Your task to perform on an android device: Check the weather Image 0: 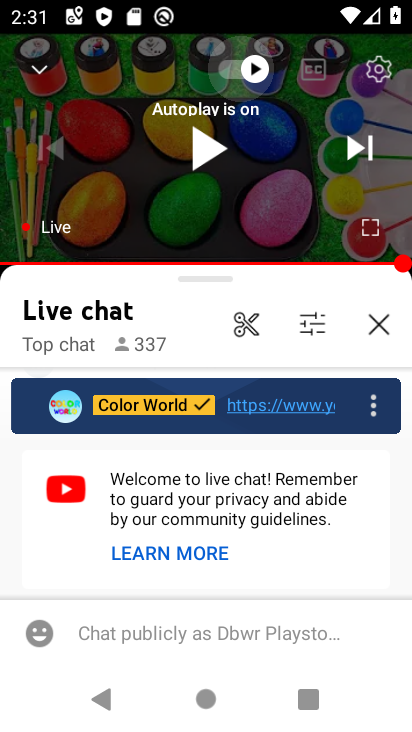
Step 0: press home button
Your task to perform on an android device: Check the weather Image 1: 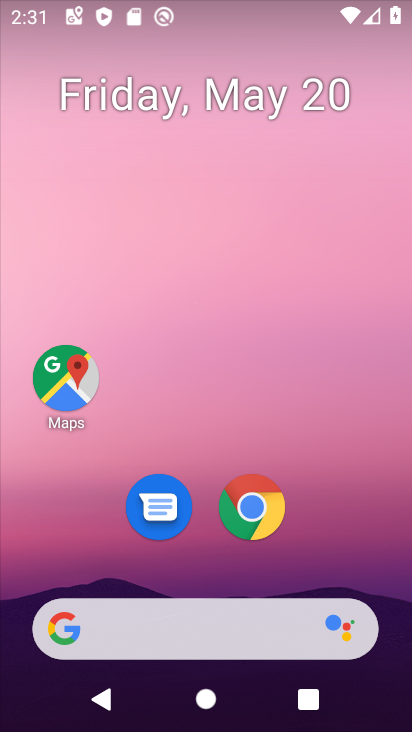
Step 1: drag from (217, 723) to (236, 234)
Your task to perform on an android device: Check the weather Image 2: 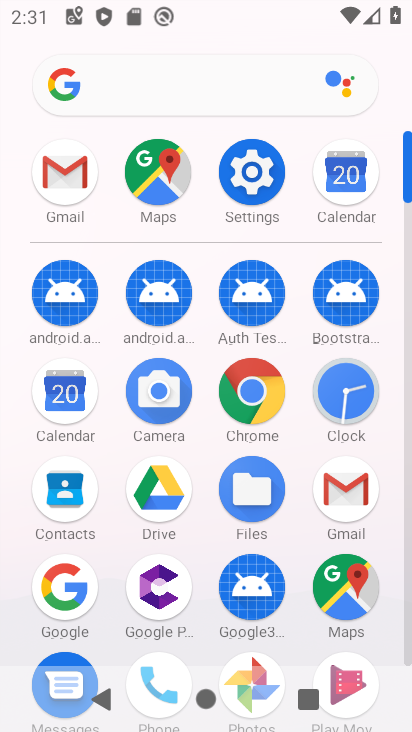
Step 2: click (71, 591)
Your task to perform on an android device: Check the weather Image 3: 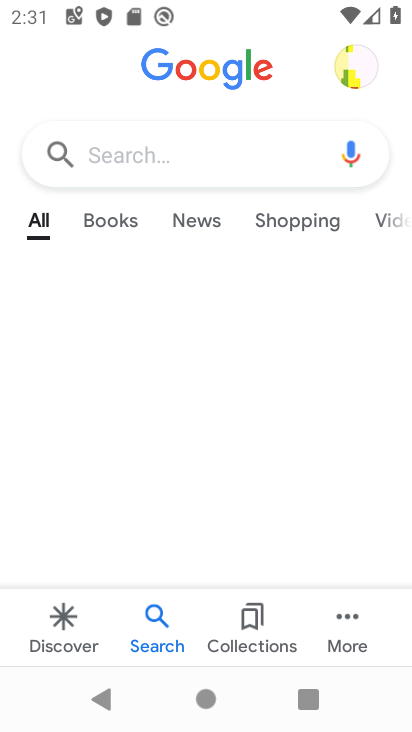
Step 3: click (159, 155)
Your task to perform on an android device: Check the weather Image 4: 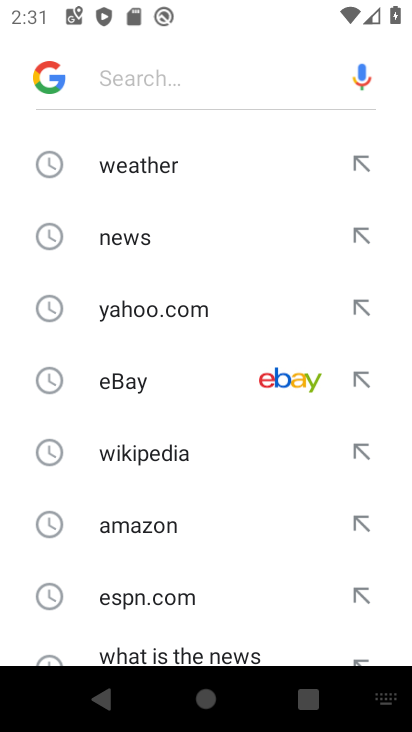
Step 4: click (142, 161)
Your task to perform on an android device: Check the weather Image 5: 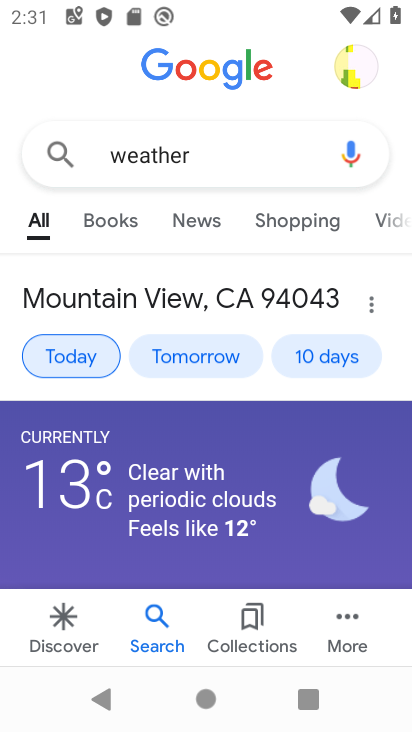
Step 5: task complete